Your task to perform on an android device: visit the assistant section in the google photos Image 0: 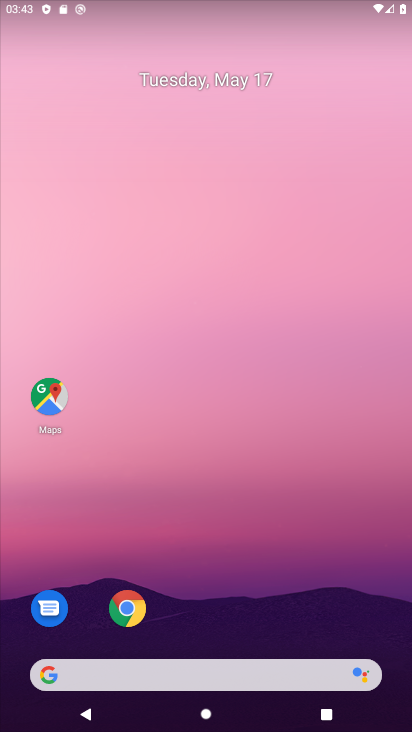
Step 0: drag from (230, 644) to (325, 243)
Your task to perform on an android device: visit the assistant section in the google photos Image 1: 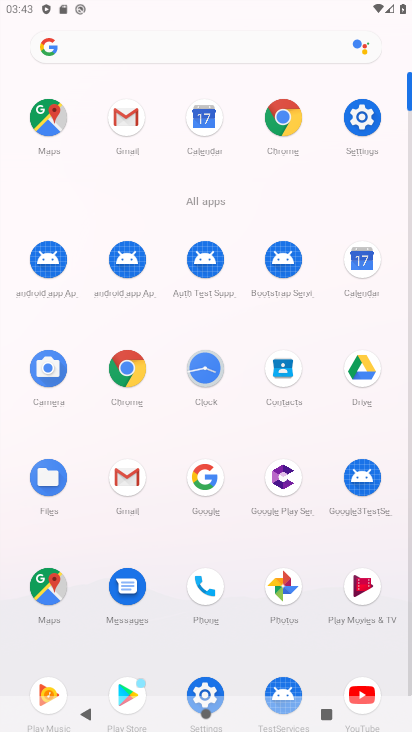
Step 1: click (284, 583)
Your task to perform on an android device: visit the assistant section in the google photos Image 2: 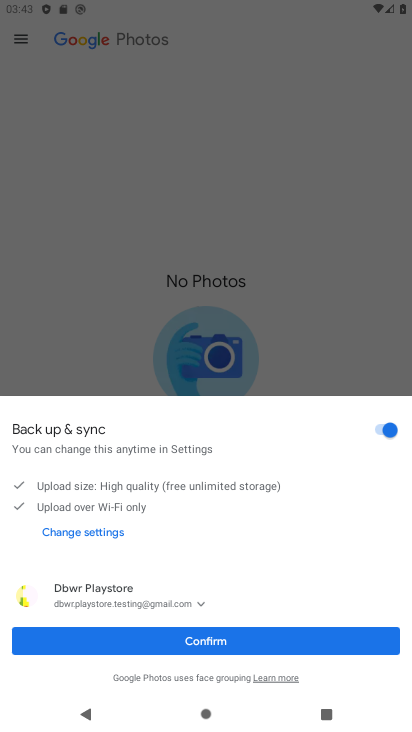
Step 2: click (211, 645)
Your task to perform on an android device: visit the assistant section in the google photos Image 3: 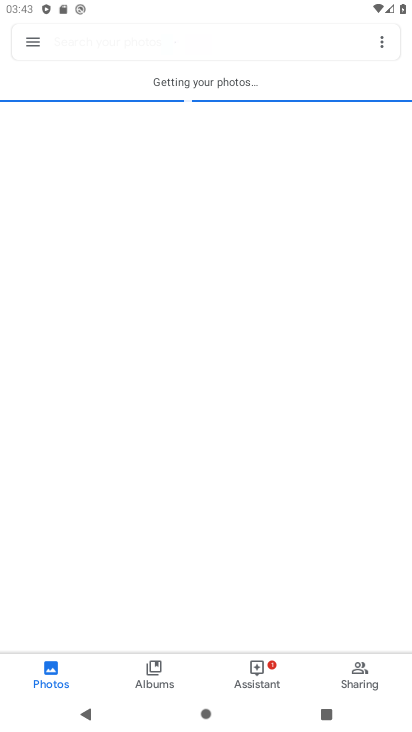
Step 3: click (253, 671)
Your task to perform on an android device: visit the assistant section in the google photos Image 4: 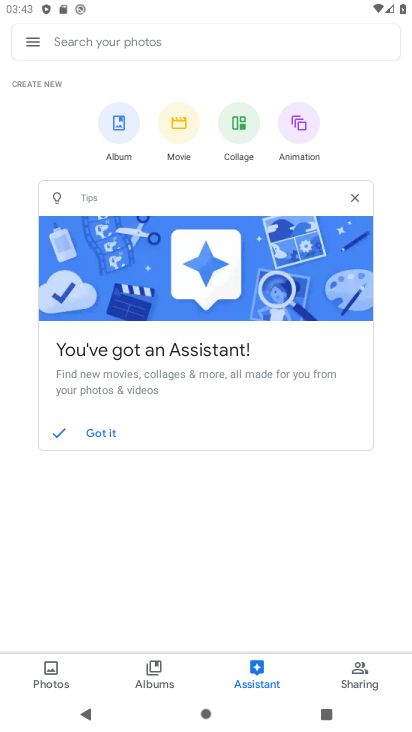
Step 4: drag from (263, 528) to (289, 242)
Your task to perform on an android device: visit the assistant section in the google photos Image 5: 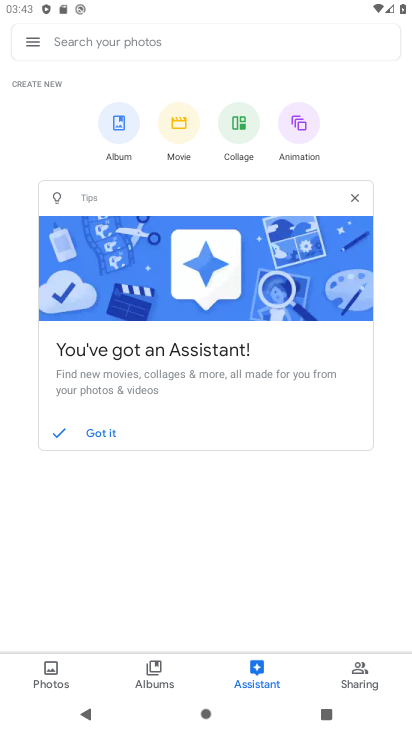
Step 5: click (93, 439)
Your task to perform on an android device: visit the assistant section in the google photos Image 6: 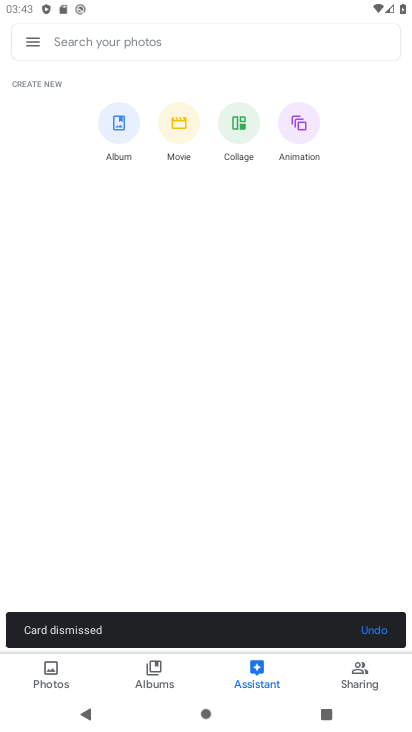
Step 6: task complete